Your task to perform on an android device: Open internet settings Image 0: 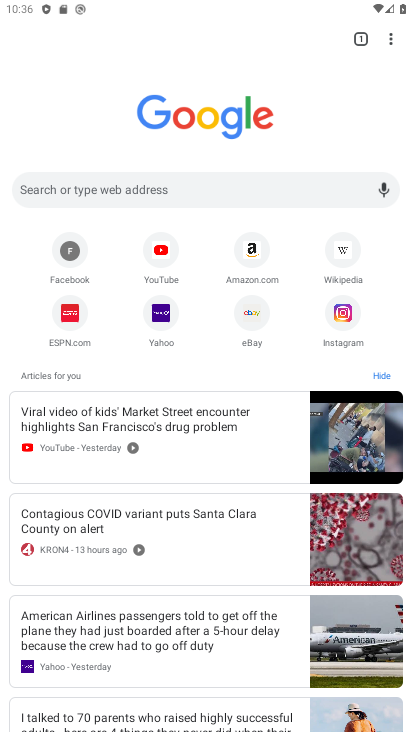
Step 0: press home button
Your task to perform on an android device: Open internet settings Image 1: 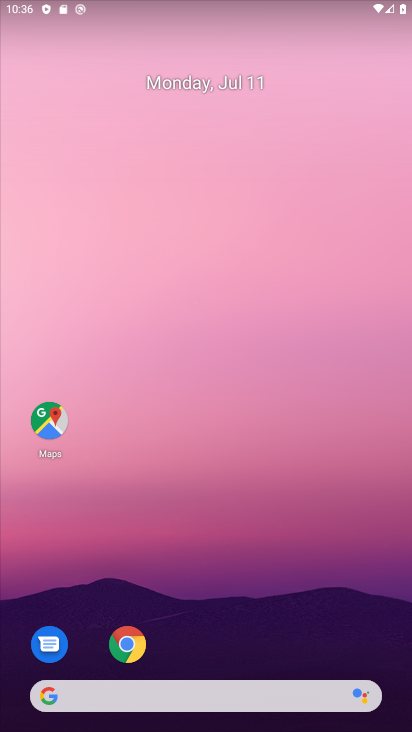
Step 1: drag from (251, 556) to (291, 194)
Your task to perform on an android device: Open internet settings Image 2: 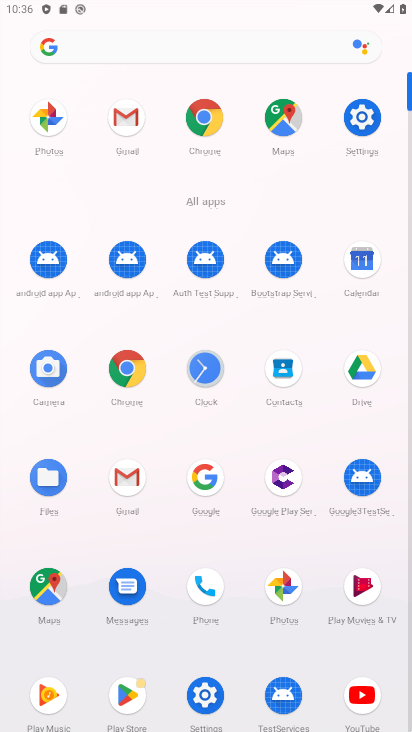
Step 2: drag from (348, 120) to (312, 187)
Your task to perform on an android device: Open internet settings Image 3: 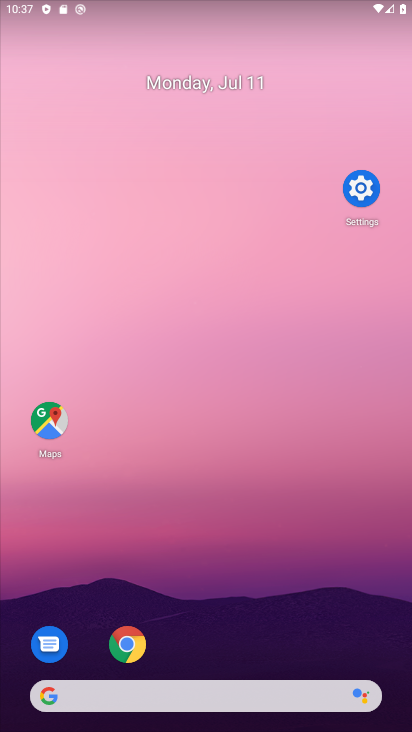
Step 3: click (351, 179)
Your task to perform on an android device: Open internet settings Image 4: 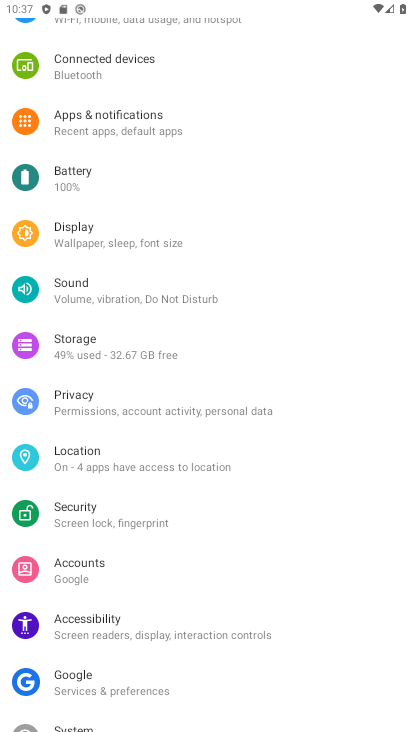
Step 4: drag from (289, 118) to (218, 531)
Your task to perform on an android device: Open internet settings Image 5: 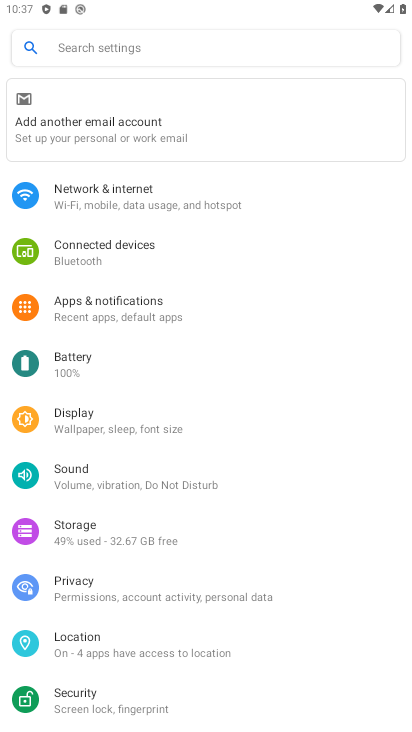
Step 5: click (229, 212)
Your task to perform on an android device: Open internet settings Image 6: 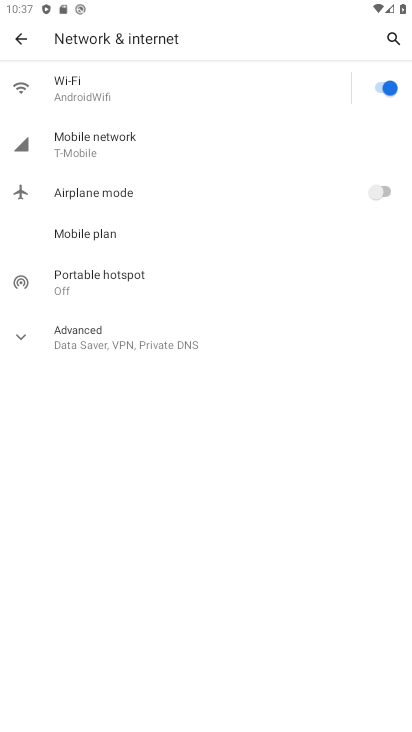
Step 6: task complete